Your task to perform on an android device: How do I get to the nearest Subway? Image 0: 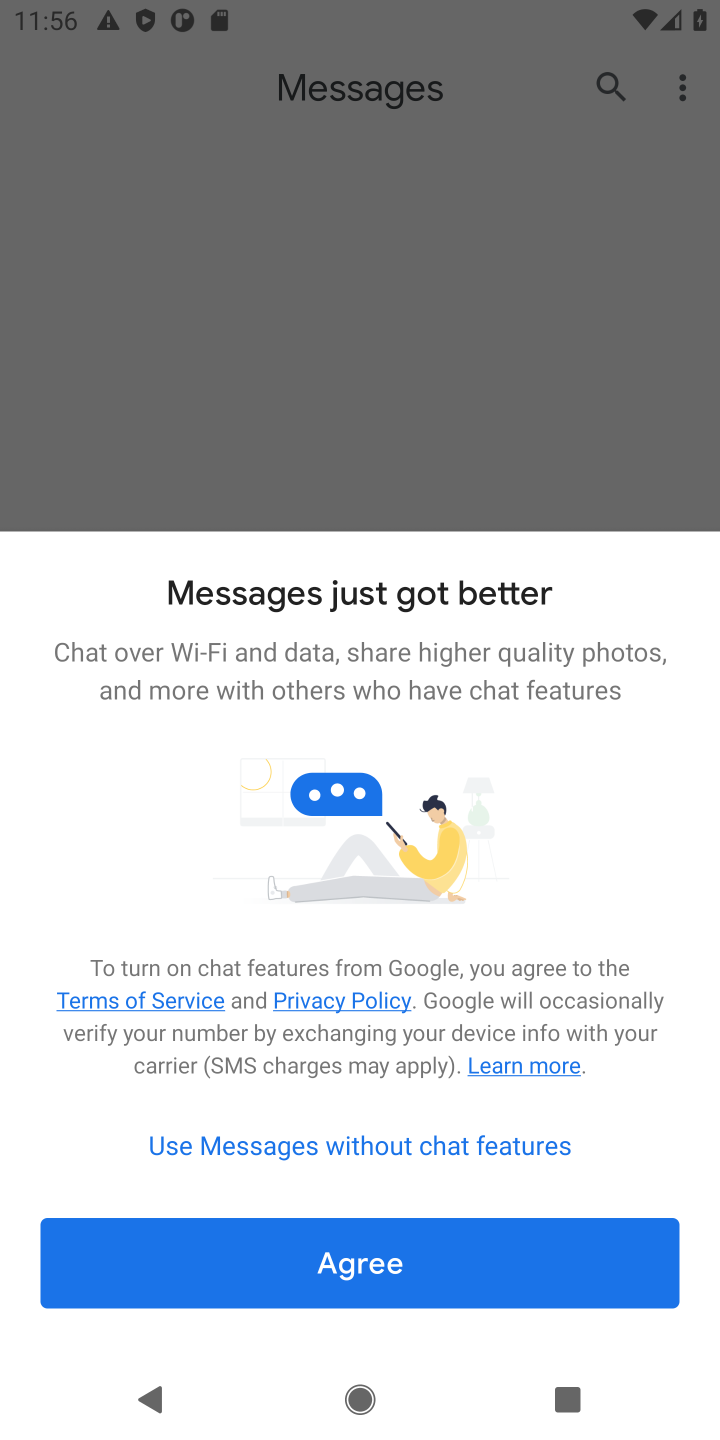
Step 0: press home button
Your task to perform on an android device: How do I get to the nearest Subway? Image 1: 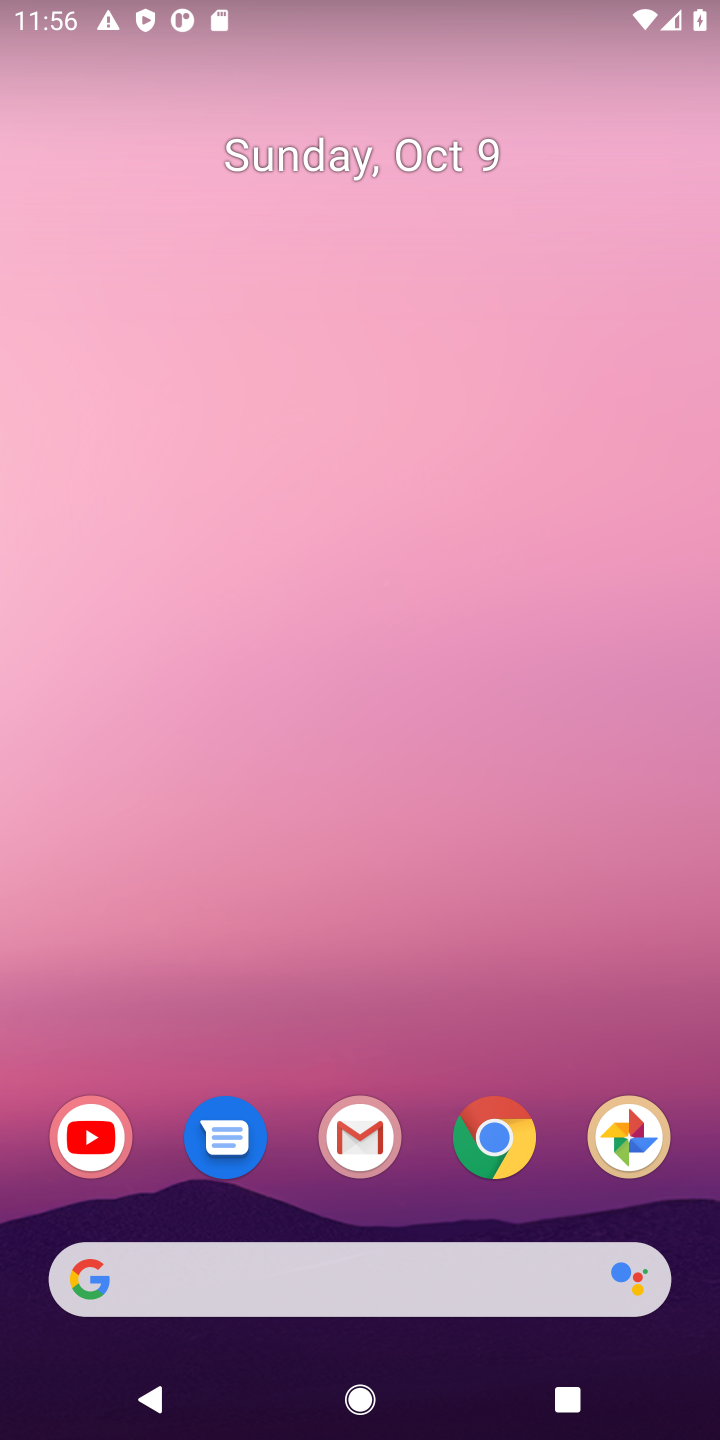
Step 1: drag from (406, 1059) to (464, 79)
Your task to perform on an android device: How do I get to the nearest Subway? Image 2: 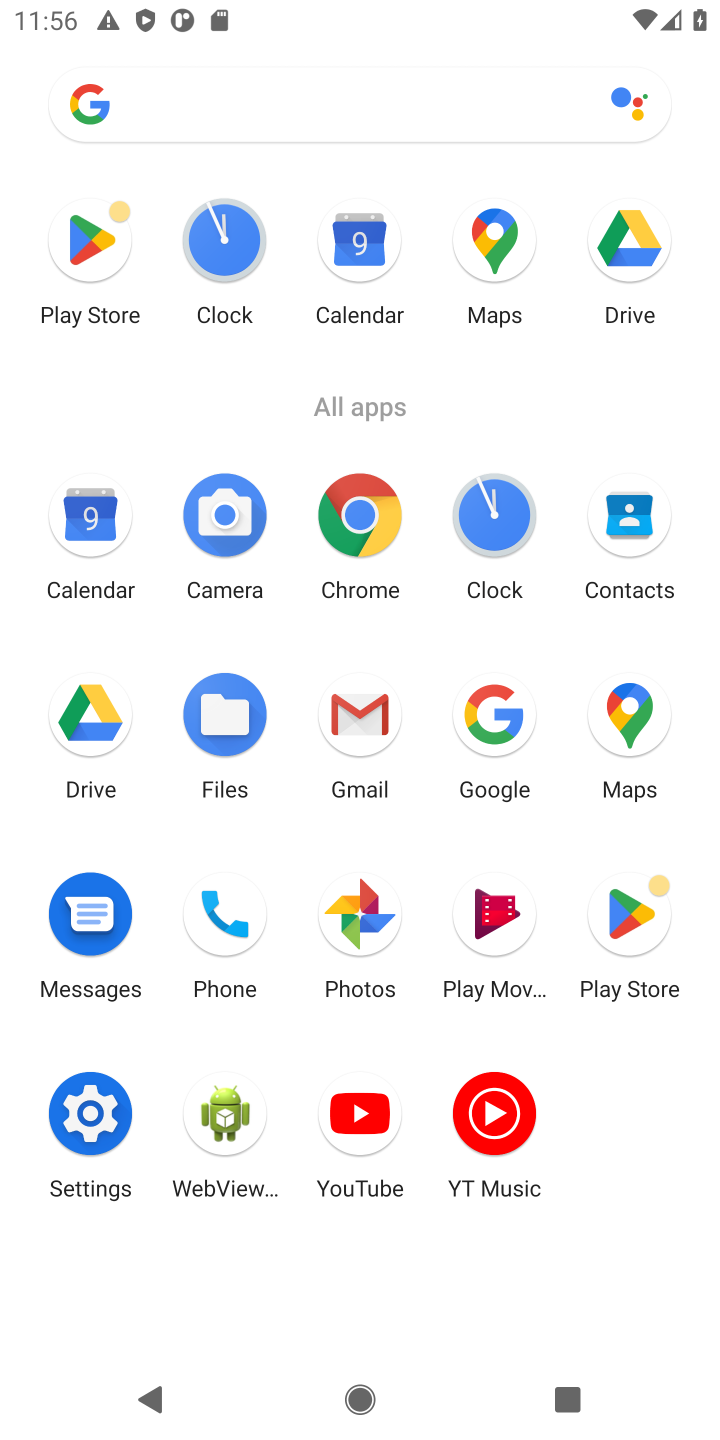
Step 2: click (356, 491)
Your task to perform on an android device: How do I get to the nearest Subway? Image 3: 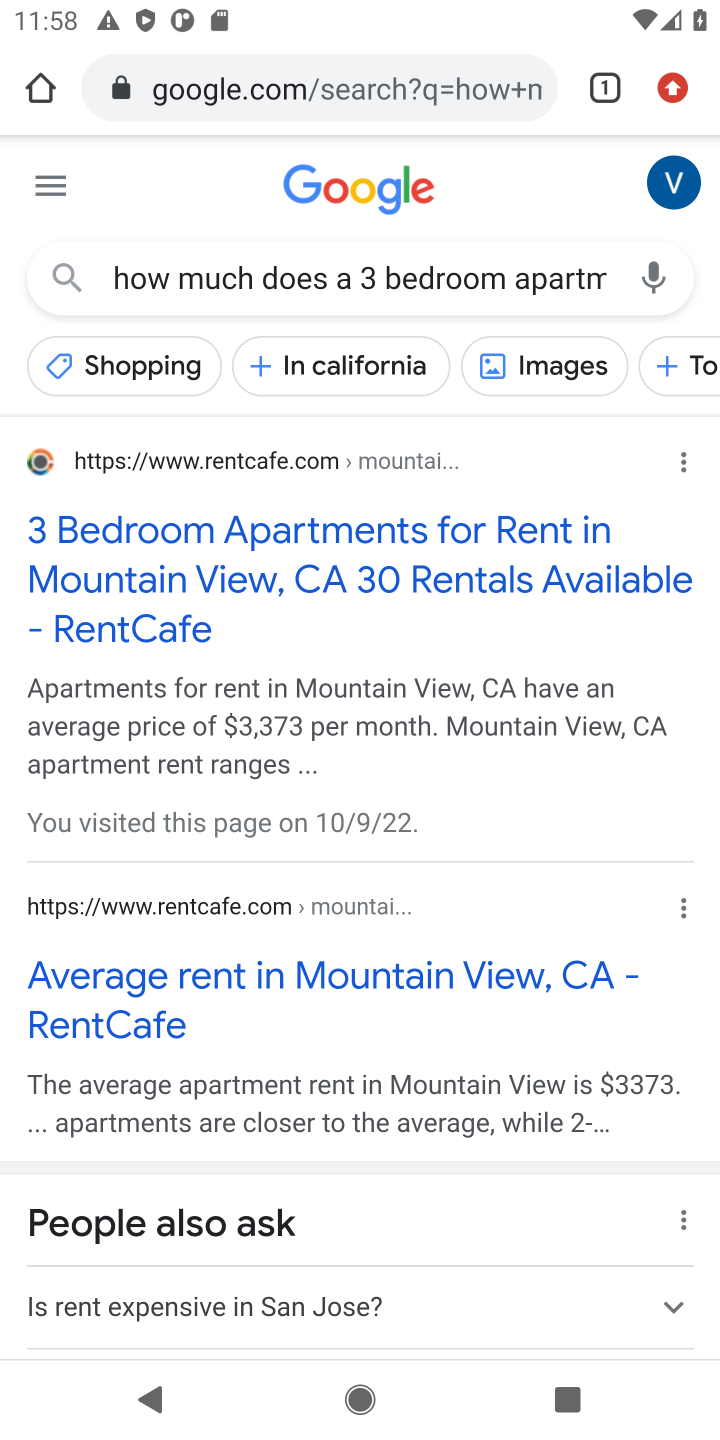
Step 3: click (494, 80)
Your task to perform on an android device: How do I get to the nearest Subway? Image 4: 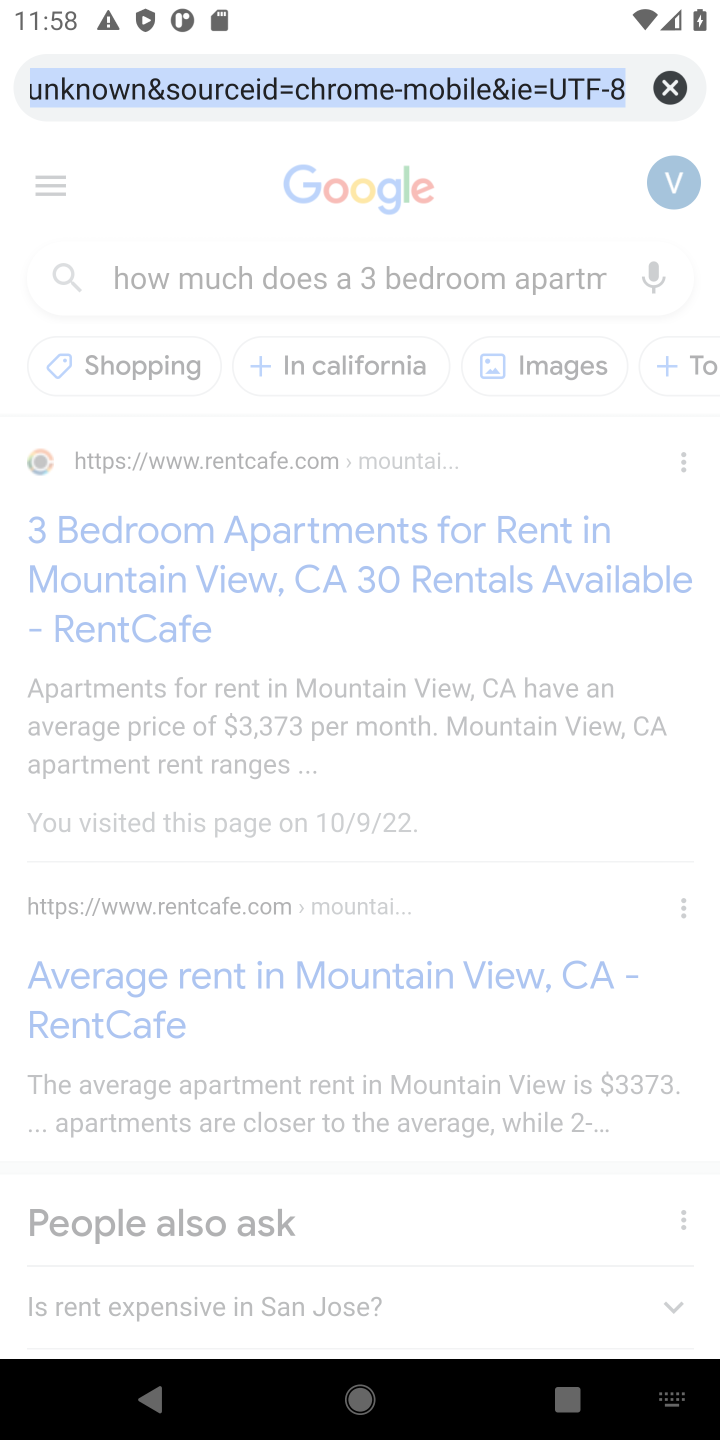
Step 4: click (668, 73)
Your task to perform on an android device: How do I get to the nearest Subway? Image 5: 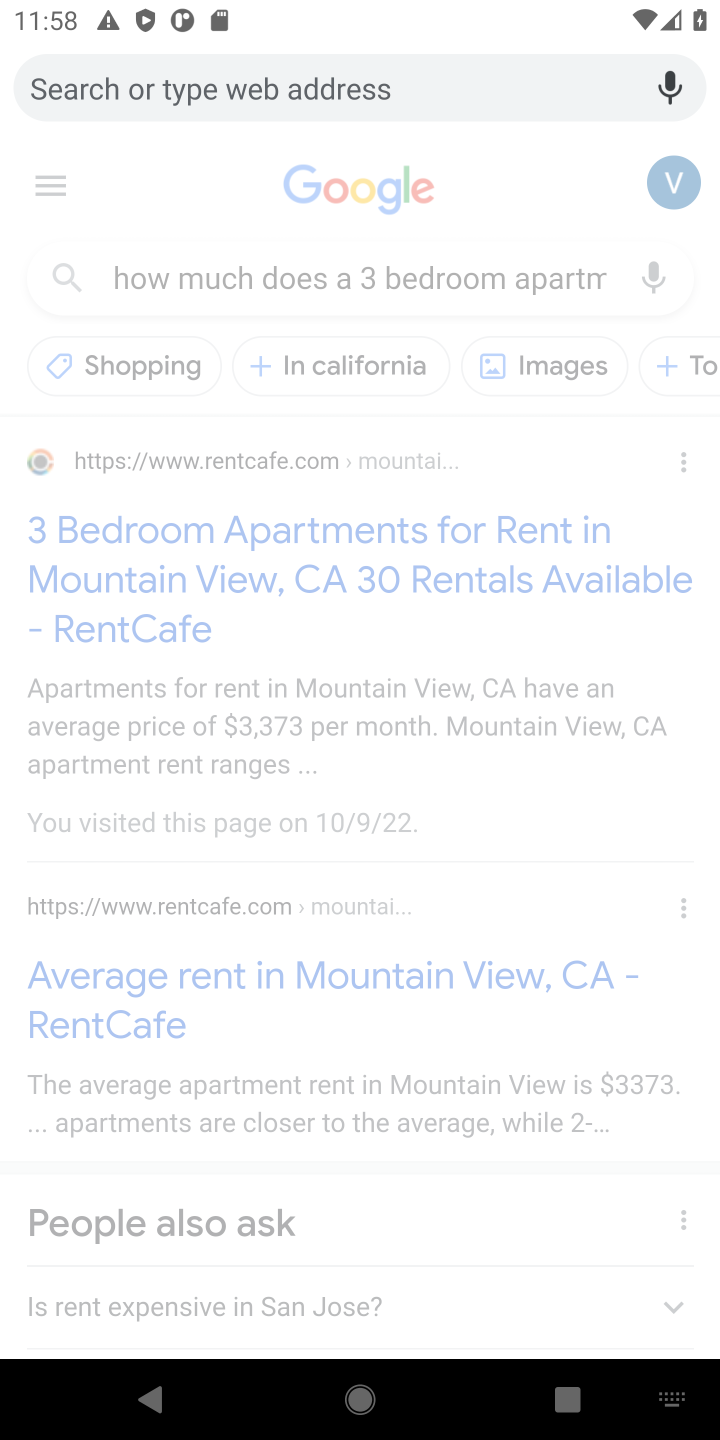
Step 5: type "How do I get to the nearest Subway?"
Your task to perform on an android device: How do I get to the nearest Subway? Image 6: 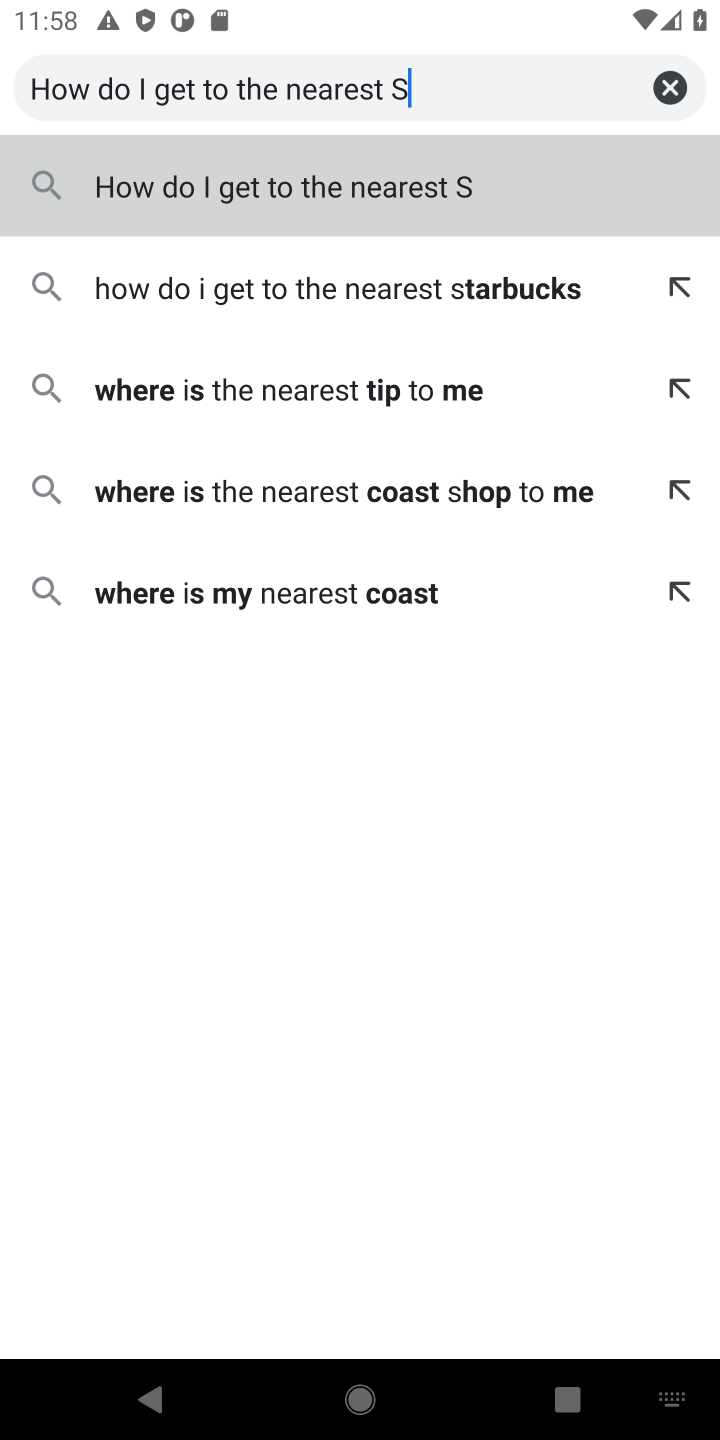
Step 6: click (448, 191)
Your task to perform on an android device: How do I get to the nearest Subway? Image 7: 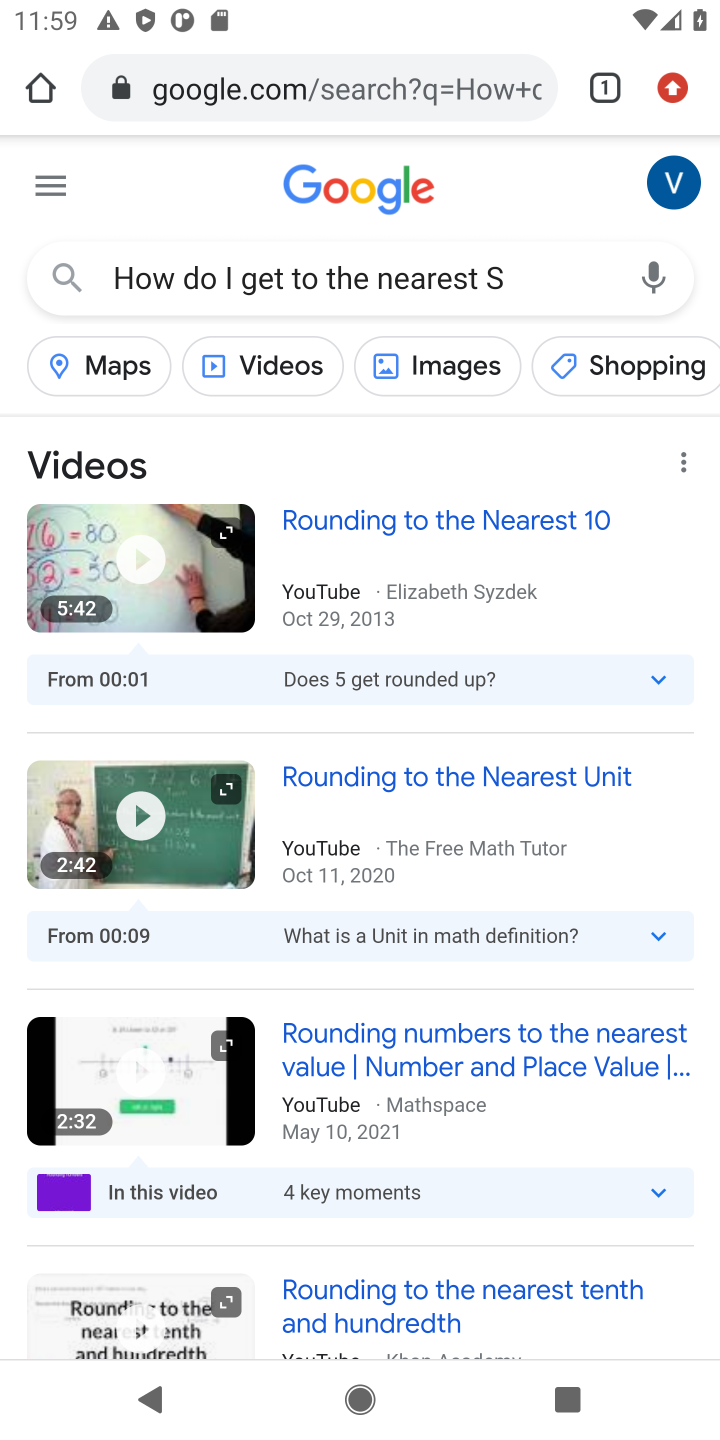
Step 7: task complete